Your task to perform on an android device: delete browsing data in the chrome app Image 0: 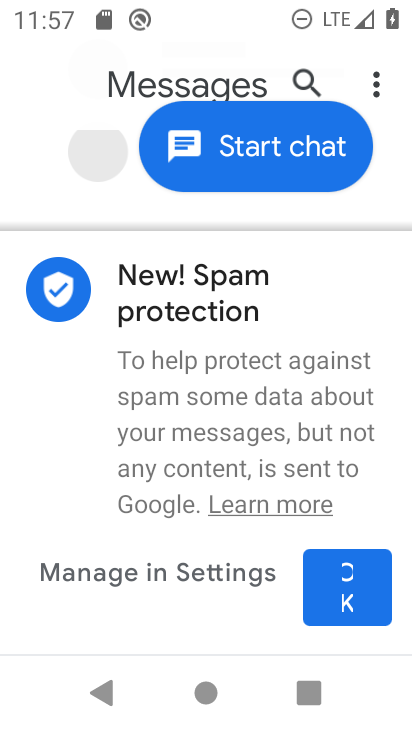
Step 0: press home button
Your task to perform on an android device: delete browsing data in the chrome app Image 1: 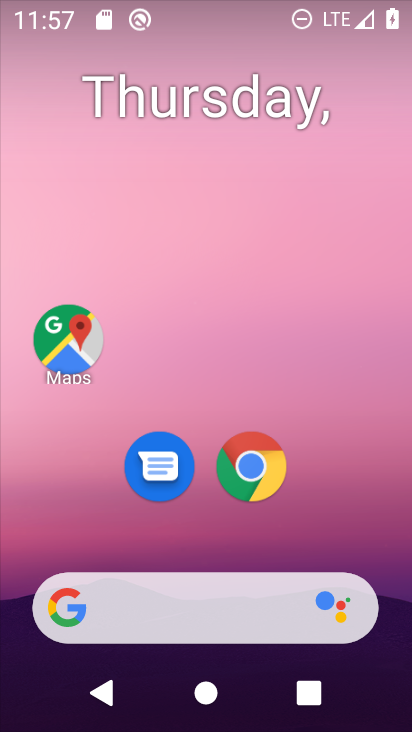
Step 1: drag from (326, 578) to (317, 81)
Your task to perform on an android device: delete browsing data in the chrome app Image 2: 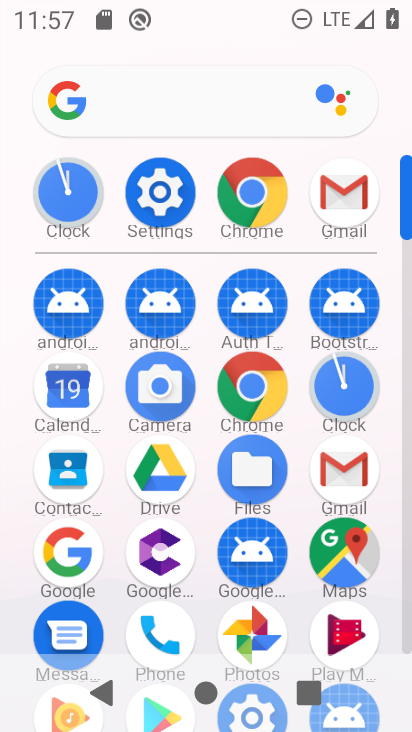
Step 2: click (268, 438)
Your task to perform on an android device: delete browsing data in the chrome app Image 3: 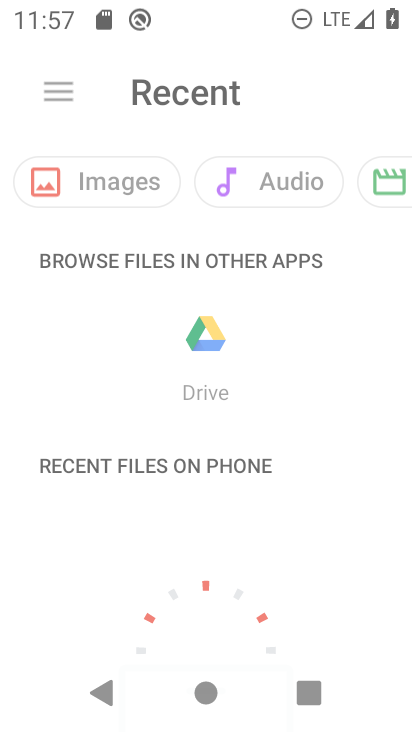
Step 3: press back button
Your task to perform on an android device: delete browsing data in the chrome app Image 4: 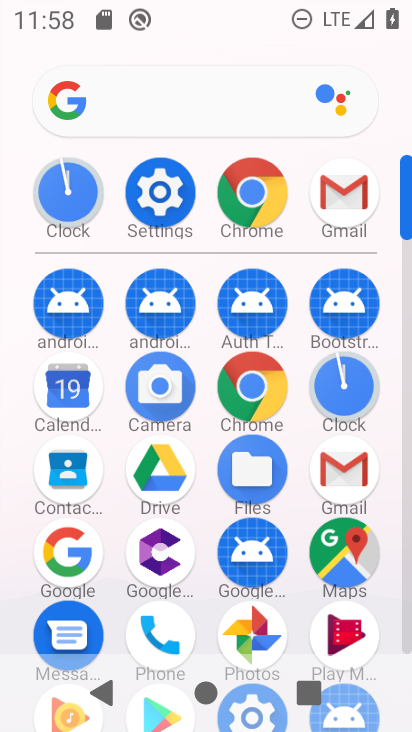
Step 4: click (252, 376)
Your task to perform on an android device: delete browsing data in the chrome app Image 5: 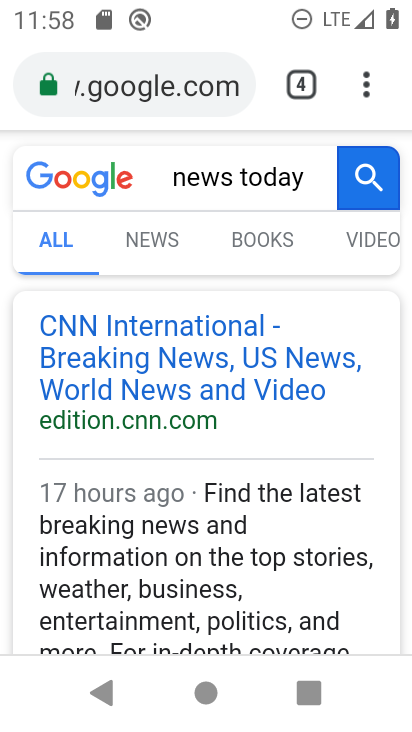
Step 5: click (365, 85)
Your task to perform on an android device: delete browsing data in the chrome app Image 6: 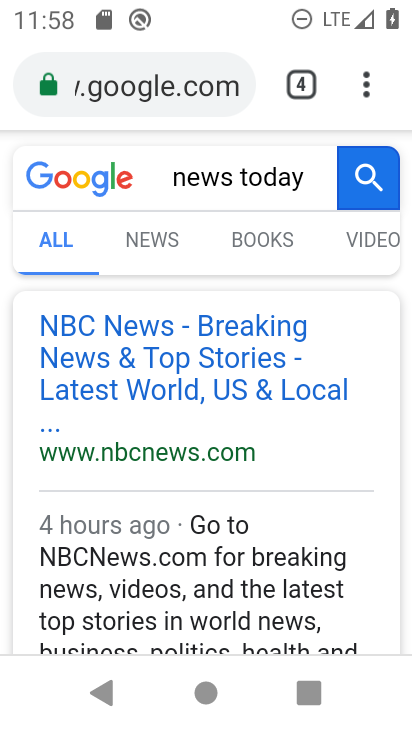
Step 6: drag from (365, 90) to (98, 476)
Your task to perform on an android device: delete browsing data in the chrome app Image 7: 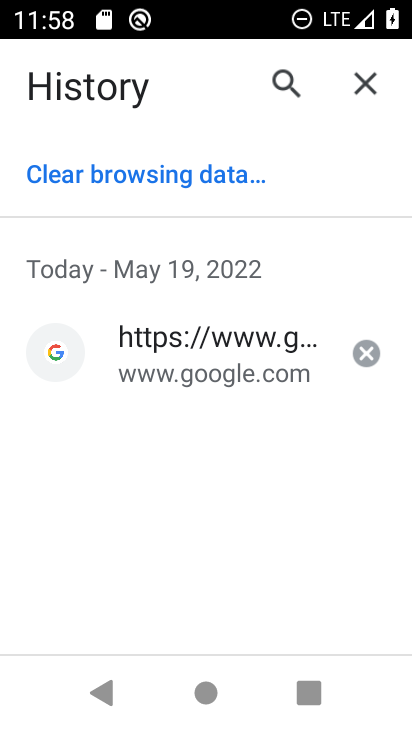
Step 7: click (190, 171)
Your task to perform on an android device: delete browsing data in the chrome app Image 8: 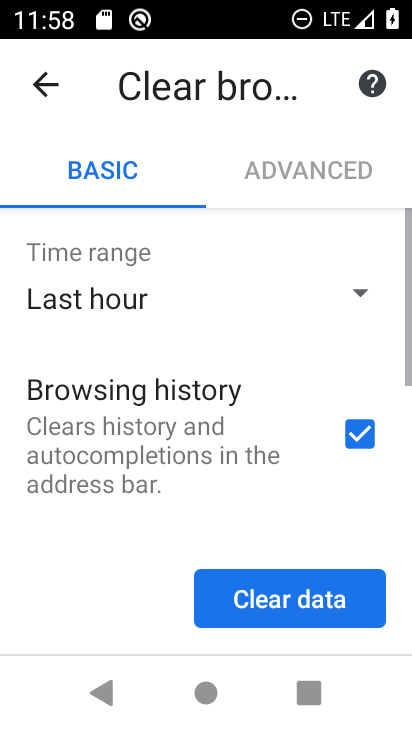
Step 8: click (346, 607)
Your task to perform on an android device: delete browsing data in the chrome app Image 9: 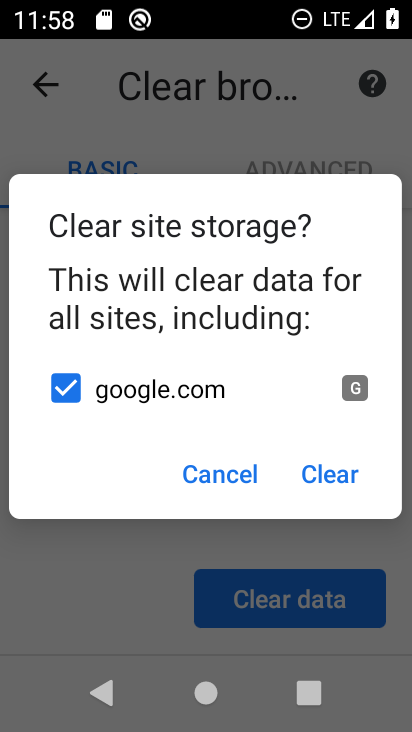
Step 9: click (336, 468)
Your task to perform on an android device: delete browsing data in the chrome app Image 10: 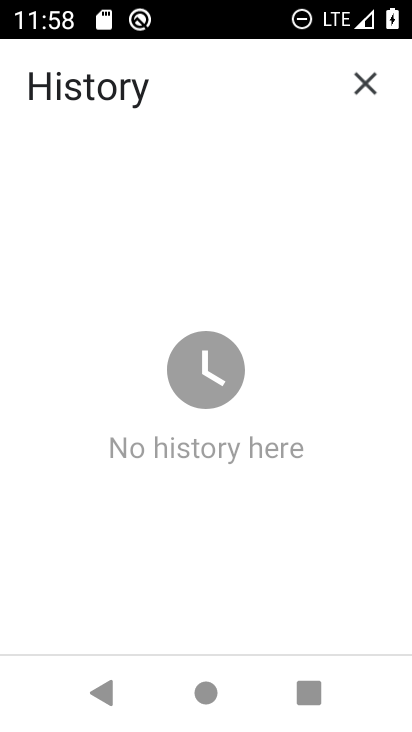
Step 10: task complete